Your task to perform on an android device: check the backup settings in the google photos Image 0: 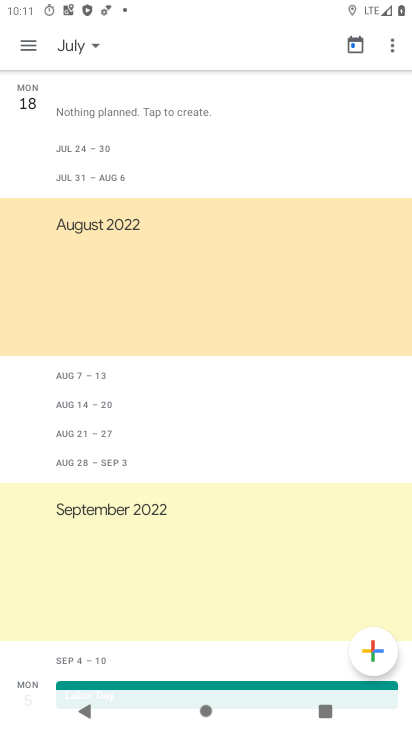
Step 0: press home button
Your task to perform on an android device: check the backup settings in the google photos Image 1: 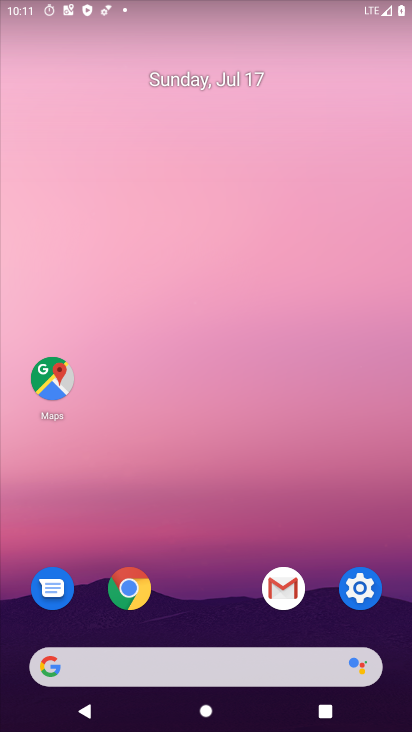
Step 1: drag from (255, 581) to (207, 308)
Your task to perform on an android device: check the backup settings in the google photos Image 2: 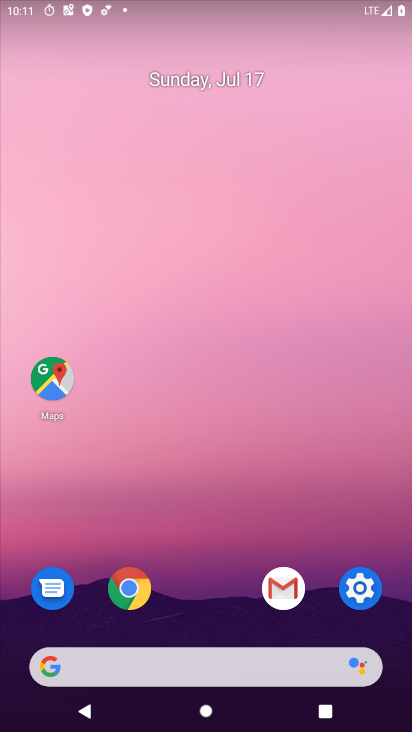
Step 2: drag from (251, 692) to (208, 260)
Your task to perform on an android device: check the backup settings in the google photos Image 3: 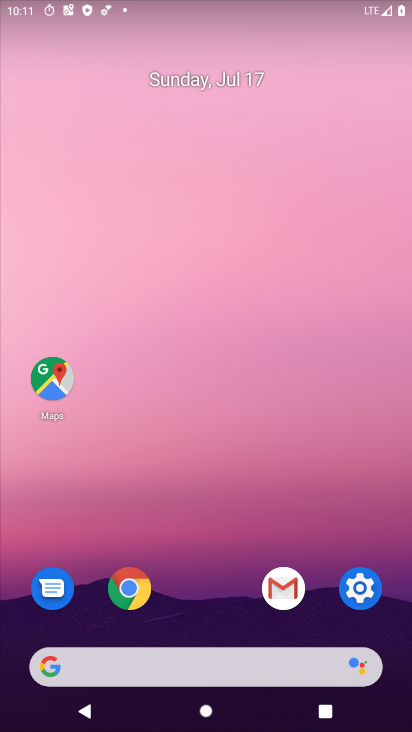
Step 3: drag from (264, 672) to (192, 161)
Your task to perform on an android device: check the backup settings in the google photos Image 4: 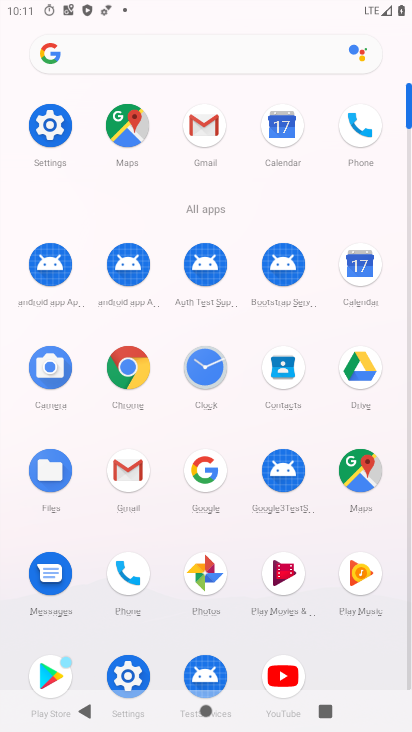
Step 4: click (223, 562)
Your task to perform on an android device: check the backup settings in the google photos Image 5: 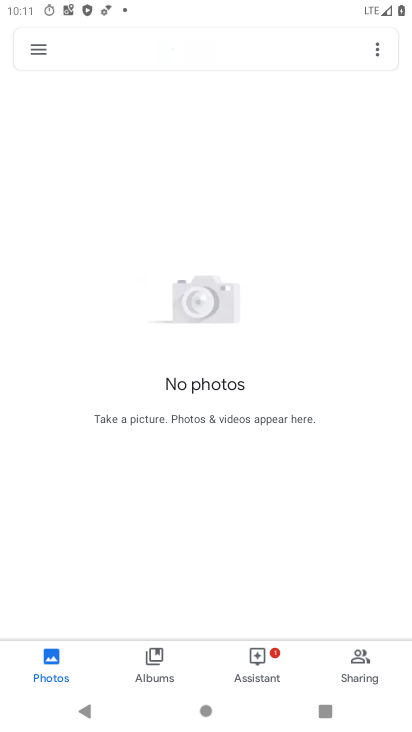
Step 5: click (41, 59)
Your task to perform on an android device: check the backup settings in the google photos Image 6: 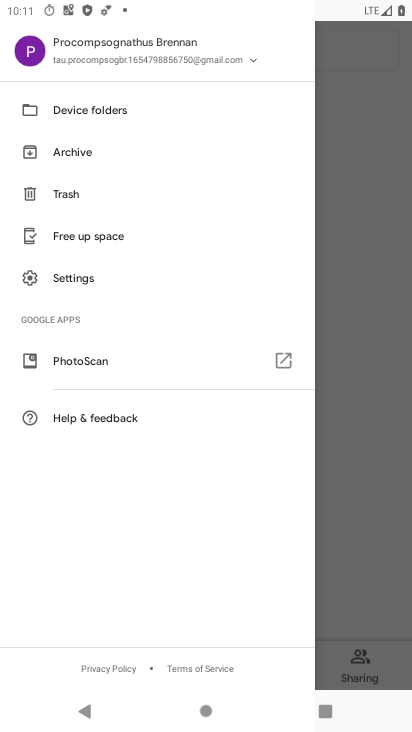
Step 6: click (85, 292)
Your task to perform on an android device: check the backup settings in the google photos Image 7: 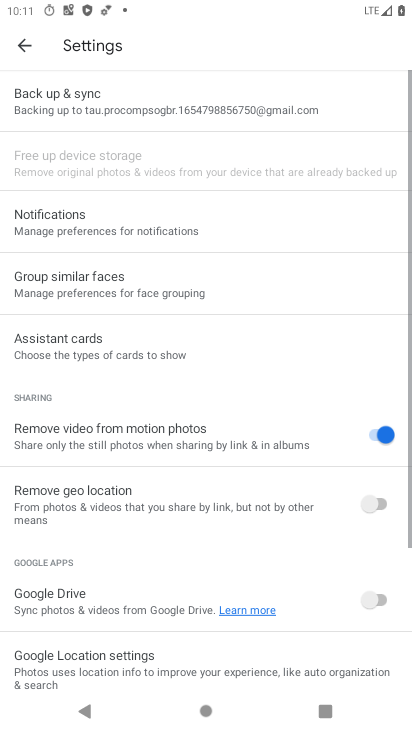
Step 7: click (78, 118)
Your task to perform on an android device: check the backup settings in the google photos Image 8: 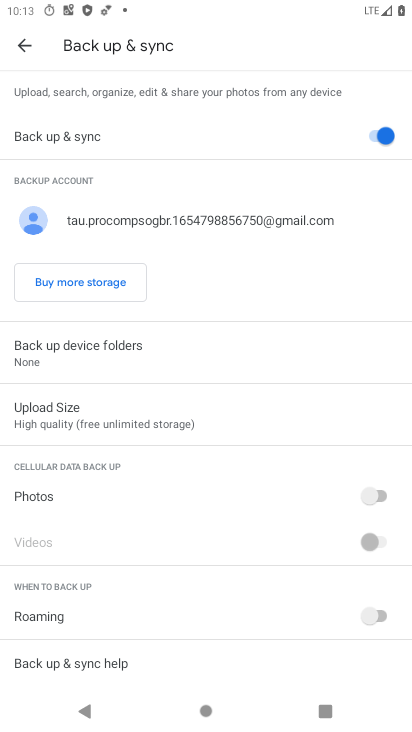
Step 8: task complete